Your task to perform on an android device: Go to display settings Image 0: 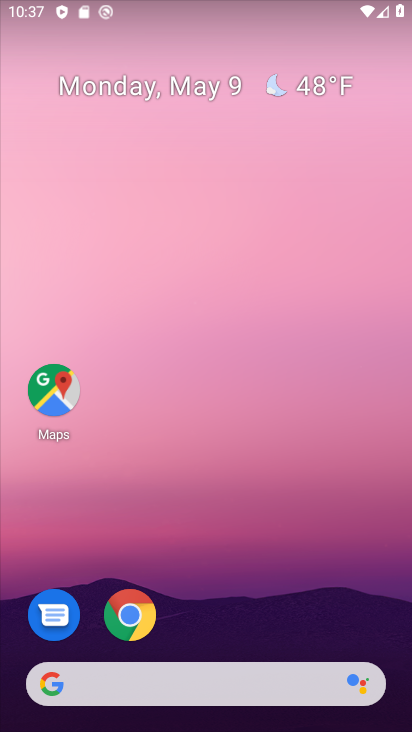
Step 0: drag from (201, 512) to (237, 26)
Your task to perform on an android device: Go to display settings Image 1: 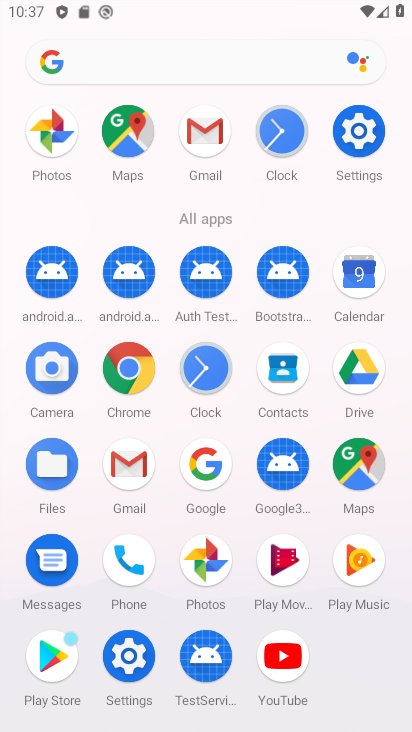
Step 1: click (360, 137)
Your task to perform on an android device: Go to display settings Image 2: 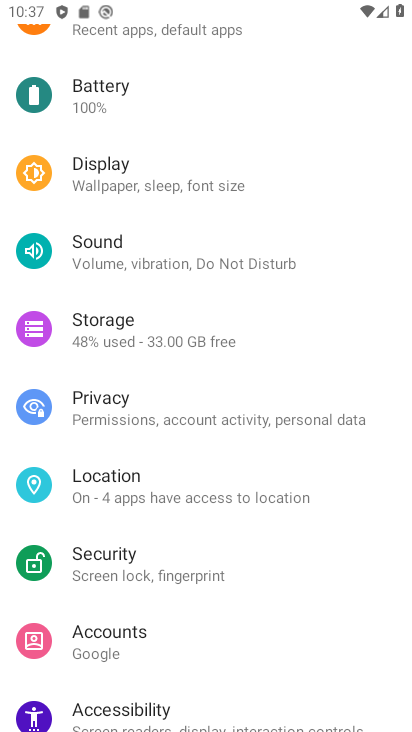
Step 2: click (165, 190)
Your task to perform on an android device: Go to display settings Image 3: 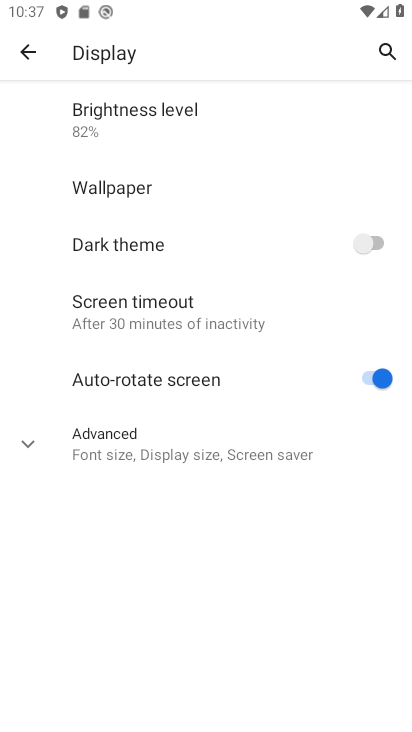
Step 3: task complete